Your task to perform on an android device: find photos in the google photos app Image 0: 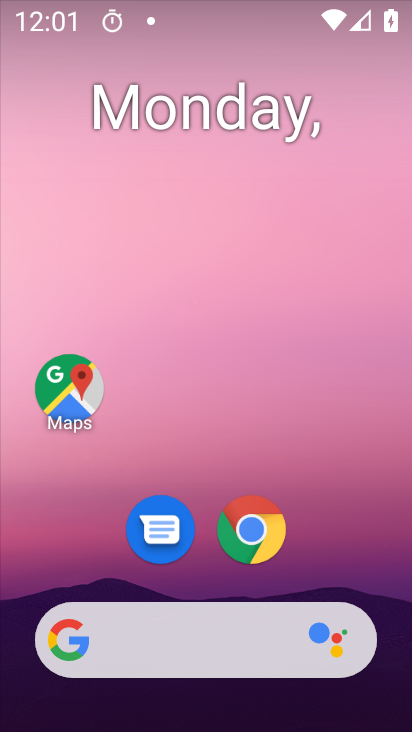
Step 0: drag from (371, 542) to (379, 204)
Your task to perform on an android device: find photos in the google photos app Image 1: 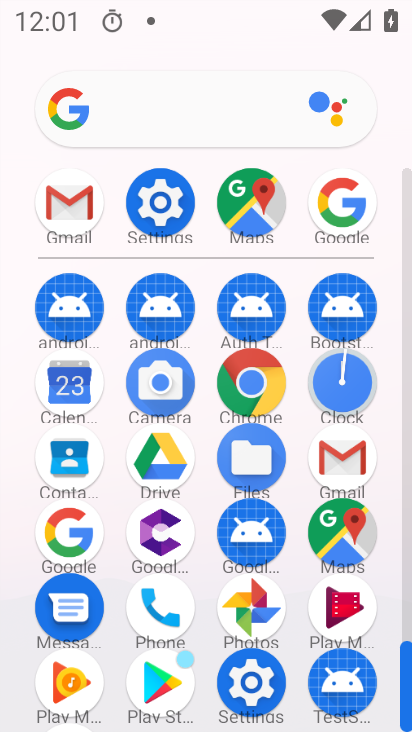
Step 1: click (254, 617)
Your task to perform on an android device: find photos in the google photos app Image 2: 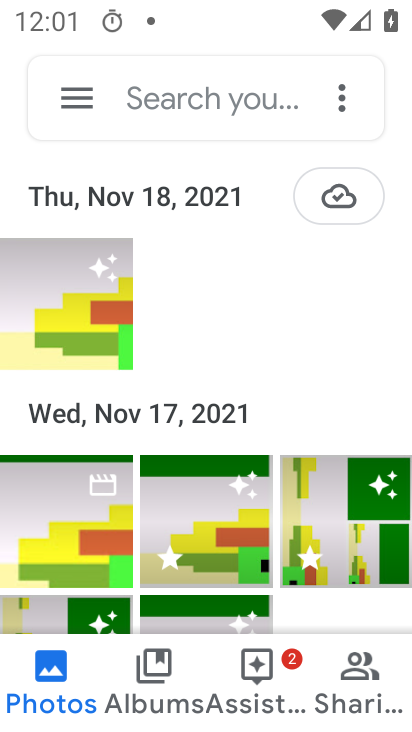
Step 2: click (66, 333)
Your task to perform on an android device: find photos in the google photos app Image 3: 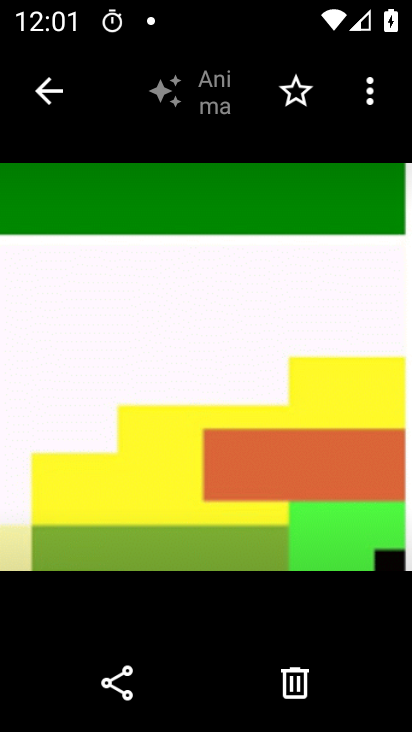
Step 3: task complete